Your task to perform on an android device: empty trash in the gmail app Image 0: 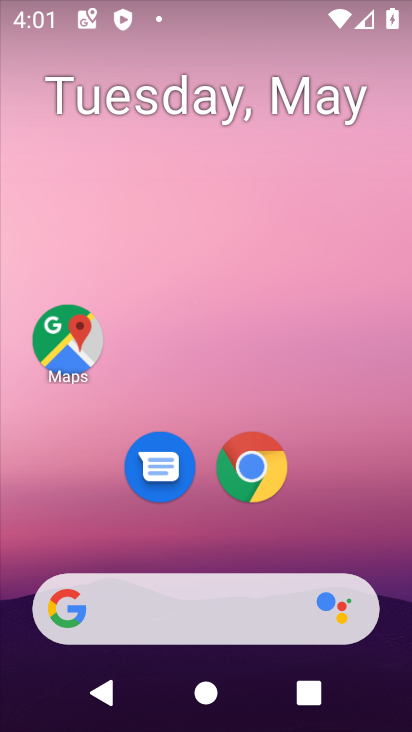
Step 0: drag from (166, 728) to (112, 23)
Your task to perform on an android device: empty trash in the gmail app Image 1: 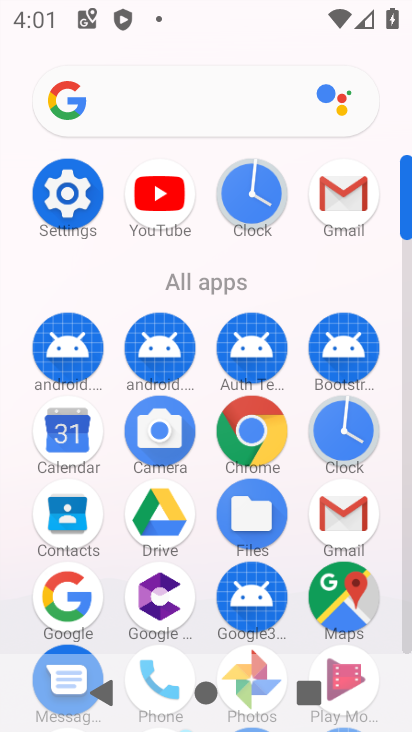
Step 1: click (358, 196)
Your task to perform on an android device: empty trash in the gmail app Image 2: 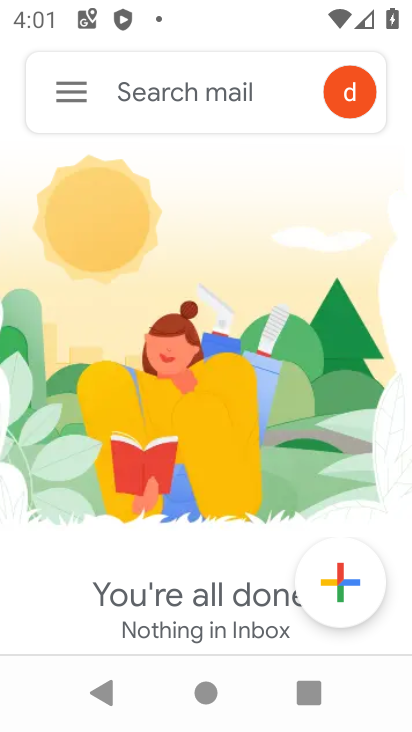
Step 2: click (53, 91)
Your task to perform on an android device: empty trash in the gmail app Image 3: 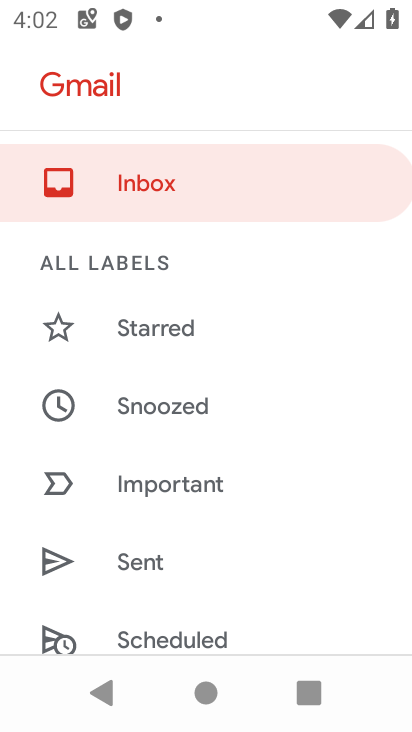
Step 3: drag from (247, 563) to (246, 214)
Your task to perform on an android device: empty trash in the gmail app Image 4: 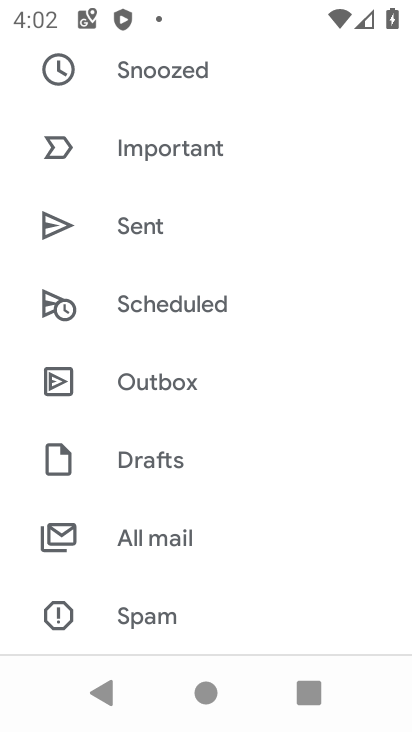
Step 4: drag from (234, 578) to (258, 155)
Your task to perform on an android device: empty trash in the gmail app Image 5: 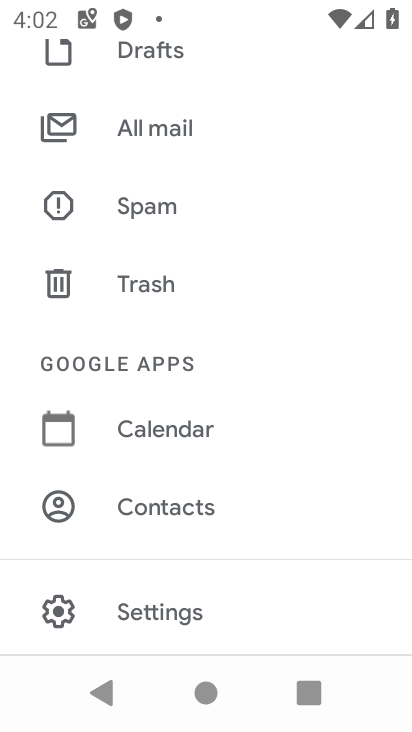
Step 5: click (163, 283)
Your task to perform on an android device: empty trash in the gmail app Image 6: 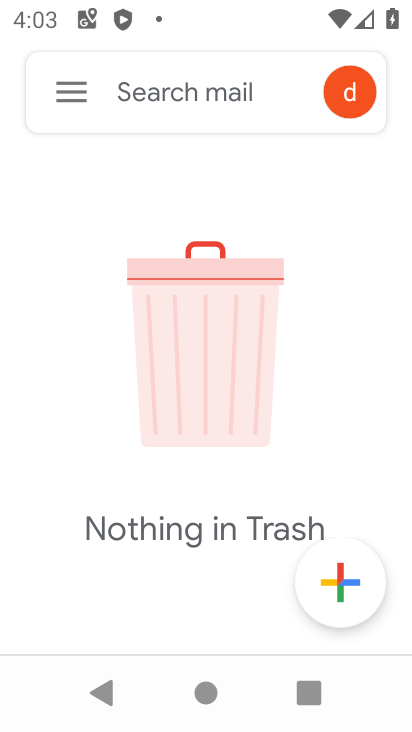
Step 6: task complete